Your task to perform on an android device: What's the weather today? Image 0: 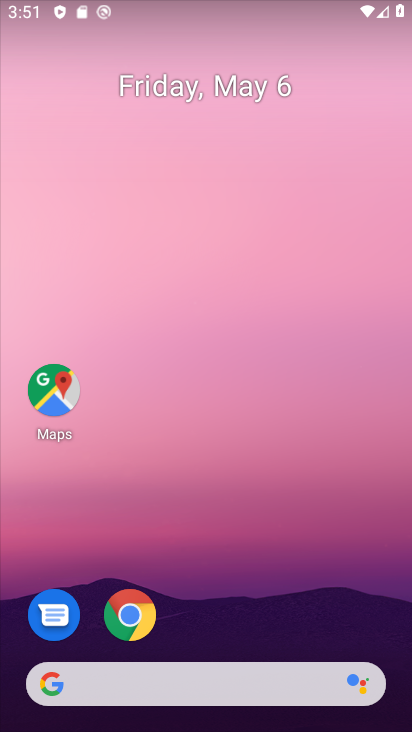
Step 0: click (208, 677)
Your task to perform on an android device: What's the weather today? Image 1: 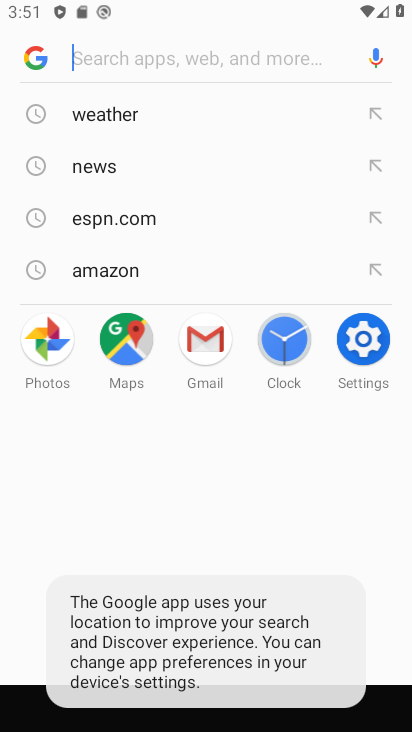
Step 1: click (114, 112)
Your task to perform on an android device: What's the weather today? Image 2: 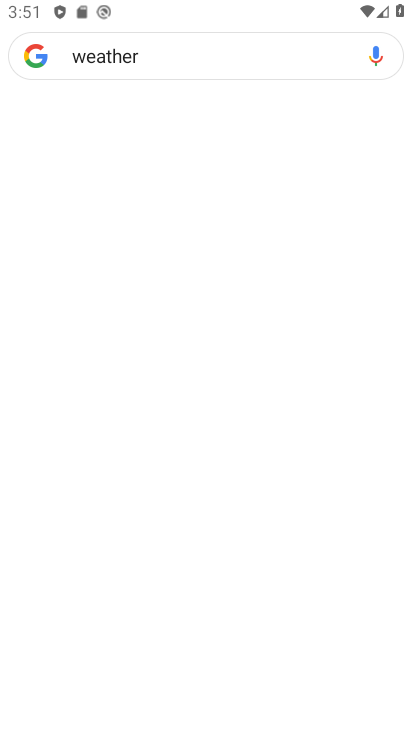
Step 2: task complete